Your task to perform on an android device: delete the emails in spam in the gmail app Image 0: 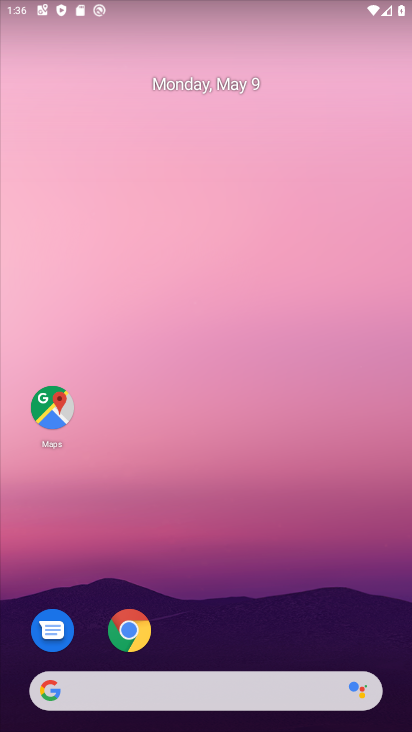
Step 0: drag from (272, 707) to (273, 489)
Your task to perform on an android device: delete the emails in spam in the gmail app Image 1: 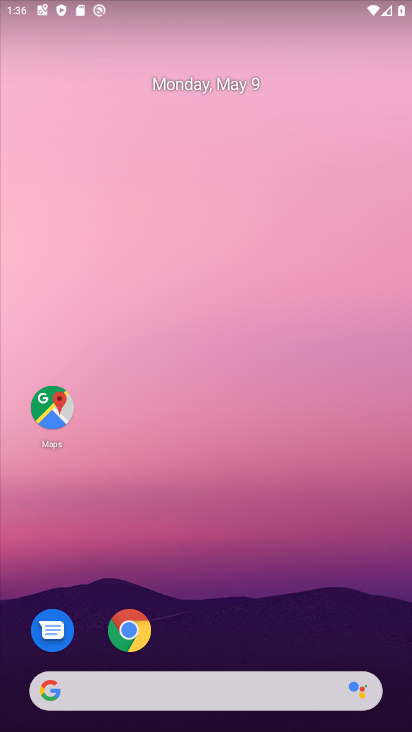
Step 1: drag from (279, 716) to (312, 209)
Your task to perform on an android device: delete the emails in spam in the gmail app Image 2: 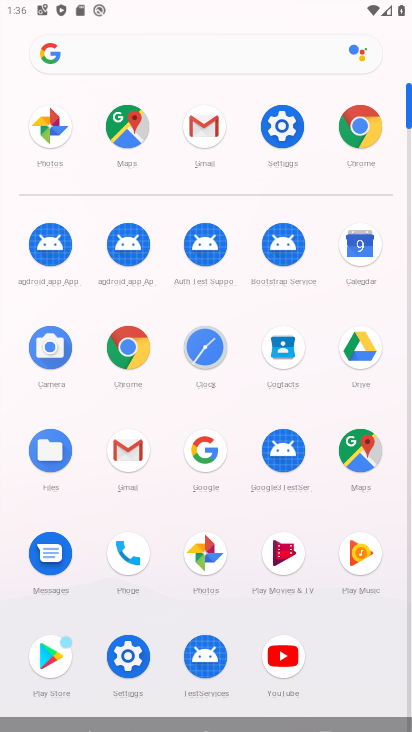
Step 2: click (209, 141)
Your task to perform on an android device: delete the emails in spam in the gmail app Image 3: 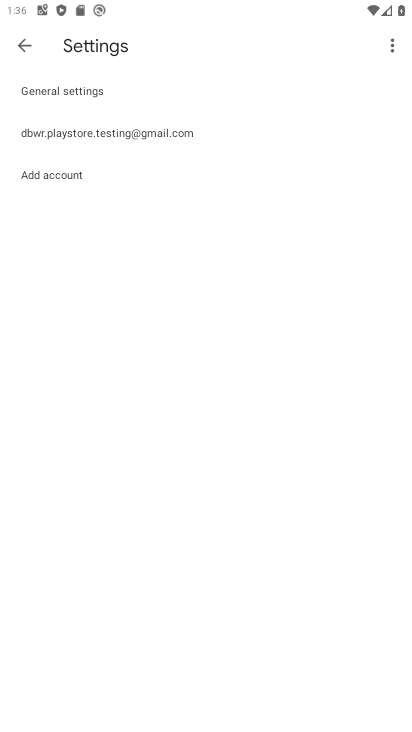
Step 3: click (72, 134)
Your task to perform on an android device: delete the emails in spam in the gmail app Image 4: 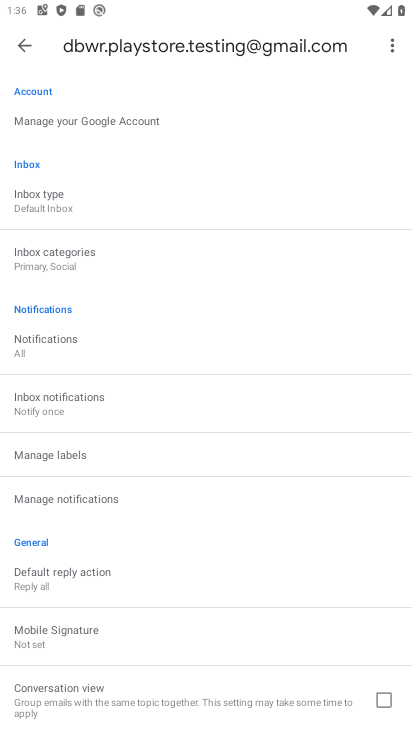
Step 4: click (30, 44)
Your task to perform on an android device: delete the emails in spam in the gmail app Image 5: 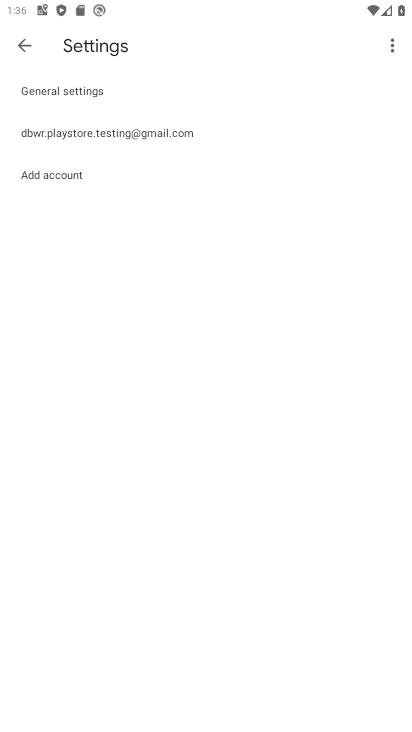
Step 5: click (30, 44)
Your task to perform on an android device: delete the emails in spam in the gmail app Image 6: 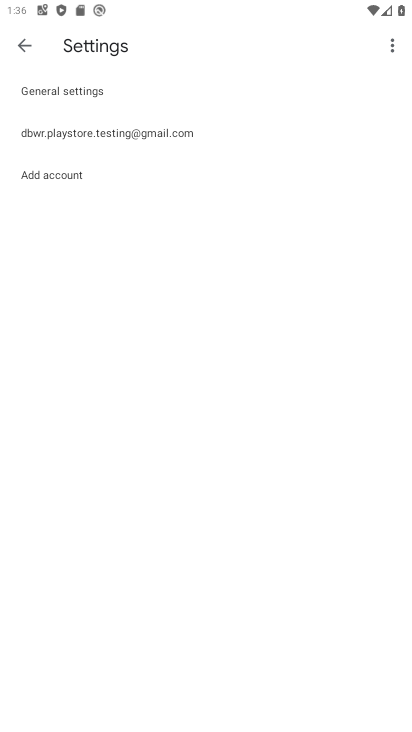
Step 6: click (33, 43)
Your task to perform on an android device: delete the emails in spam in the gmail app Image 7: 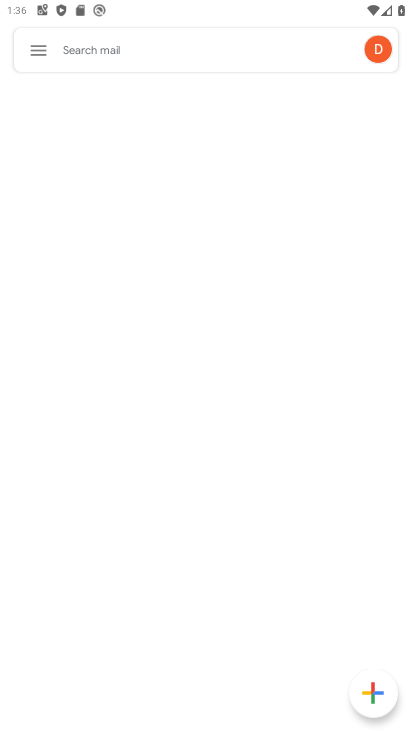
Step 7: click (47, 55)
Your task to perform on an android device: delete the emails in spam in the gmail app Image 8: 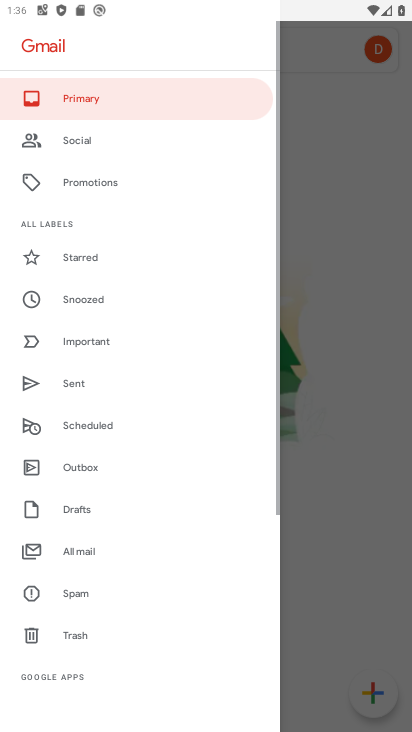
Step 8: click (68, 587)
Your task to perform on an android device: delete the emails in spam in the gmail app Image 9: 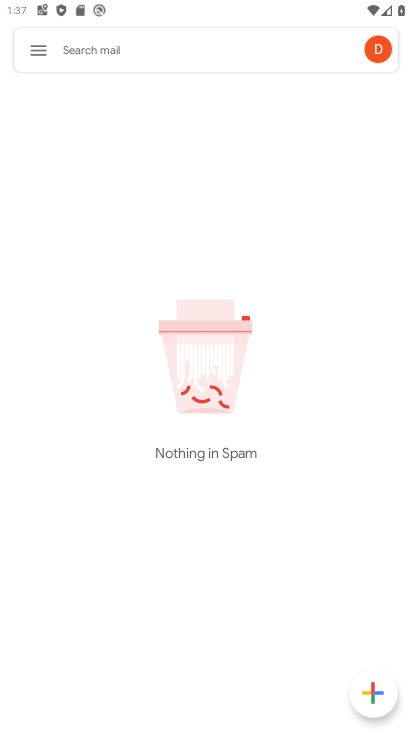
Step 9: click (130, 481)
Your task to perform on an android device: delete the emails in spam in the gmail app Image 10: 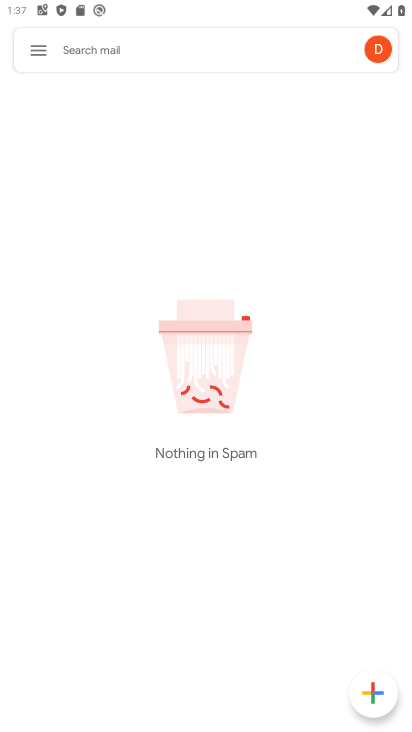
Step 10: task complete